Your task to perform on an android device: stop showing notifications on the lock screen Image 0: 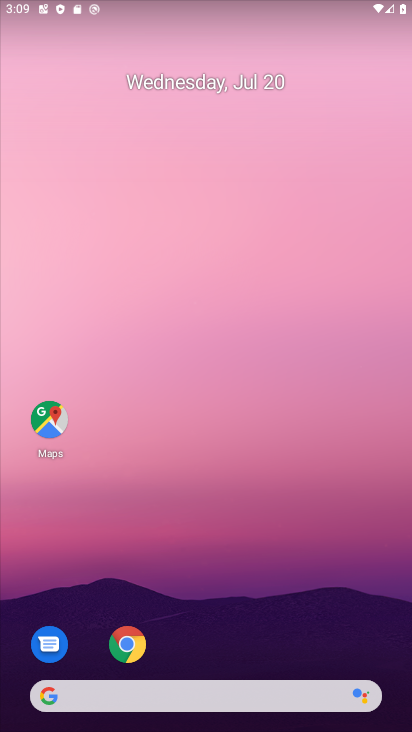
Step 0: drag from (298, 664) to (263, 316)
Your task to perform on an android device: stop showing notifications on the lock screen Image 1: 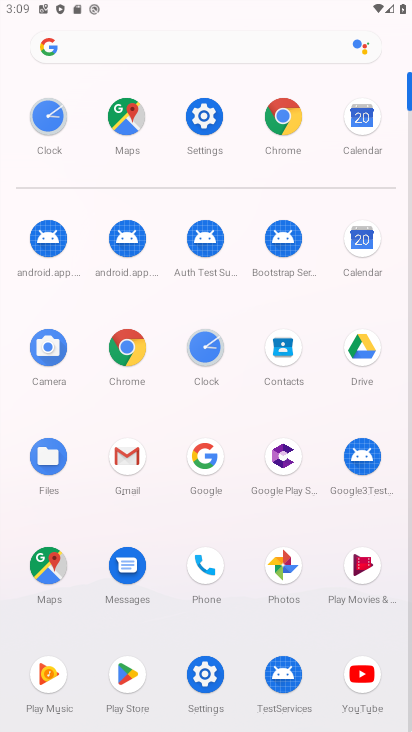
Step 1: click (211, 110)
Your task to perform on an android device: stop showing notifications on the lock screen Image 2: 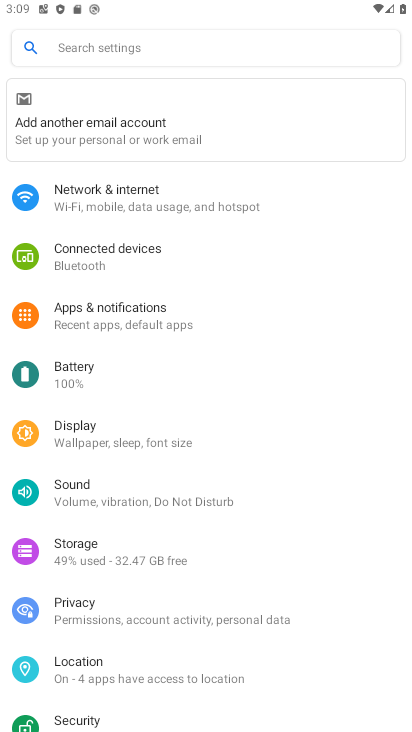
Step 2: click (137, 322)
Your task to perform on an android device: stop showing notifications on the lock screen Image 3: 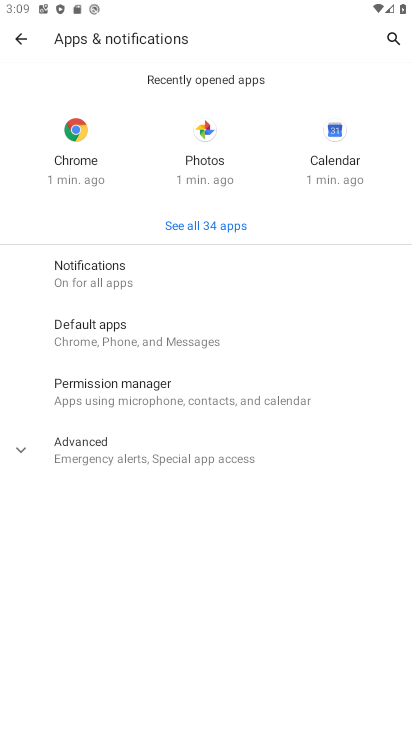
Step 3: click (137, 267)
Your task to perform on an android device: stop showing notifications on the lock screen Image 4: 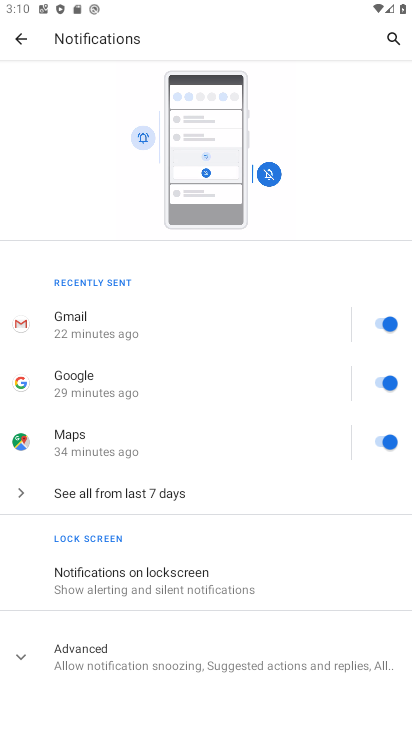
Step 4: click (170, 570)
Your task to perform on an android device: stop showing notifications on the lock screen Image 5: 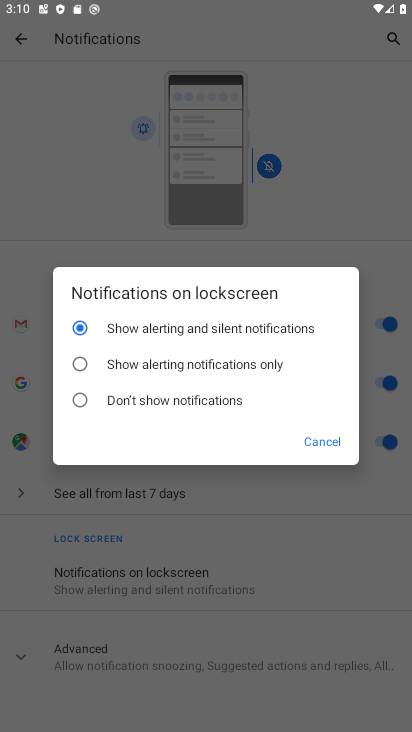
Step 5: click (148, 401)
Your task to perform on an android device: stop showing notifications on the lock screen Image 6: 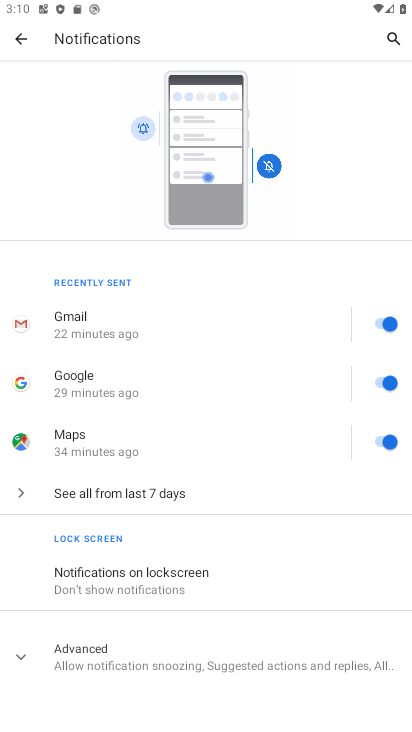
Step 6: task complete